Your task to perform on an android device: Open settings on Google Maps Image 0: 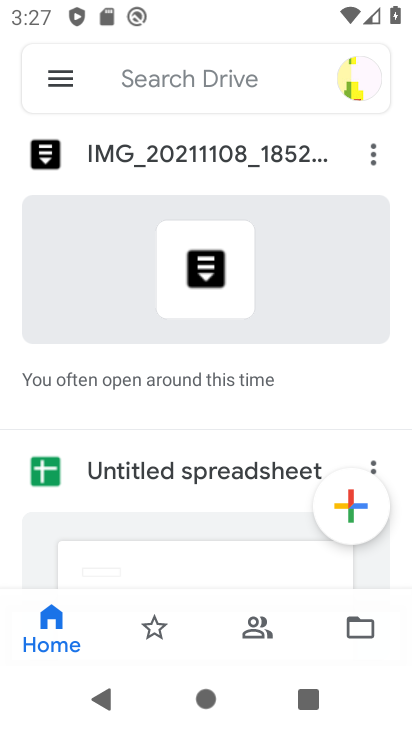
Step 0: press back button
Your task to perform on an android device: Open settings on Google Maps Image 1: 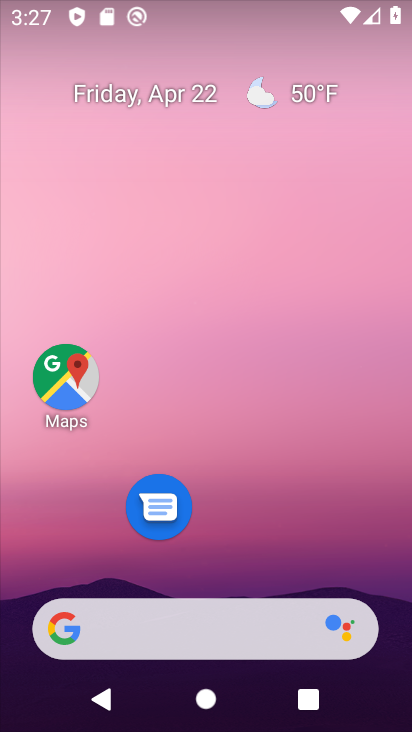
Step 1: click (66, 377)
Your task to perform on an android device: Open settings on Google Maps Image 2: 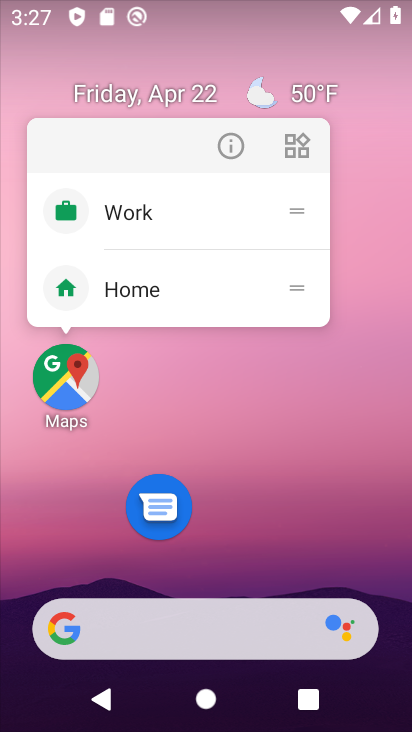
Step 2: click (73, 381)
Your task to perform on an android device: Open settings on Google Maps Image 3: 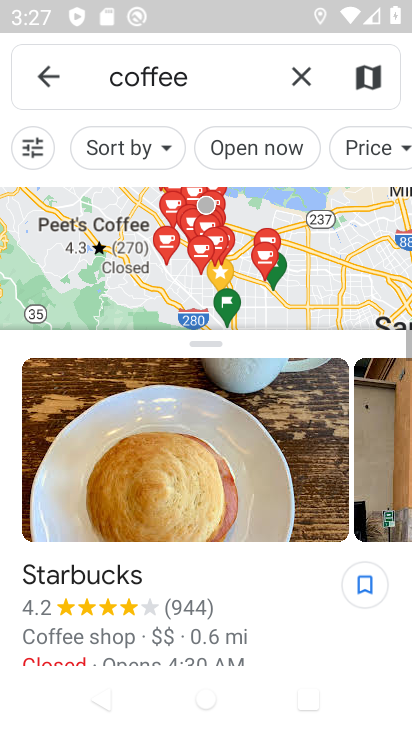
Step 3: click (37, 71)
Your task to perform on an android device: Open settings on Google Maps Image 4: 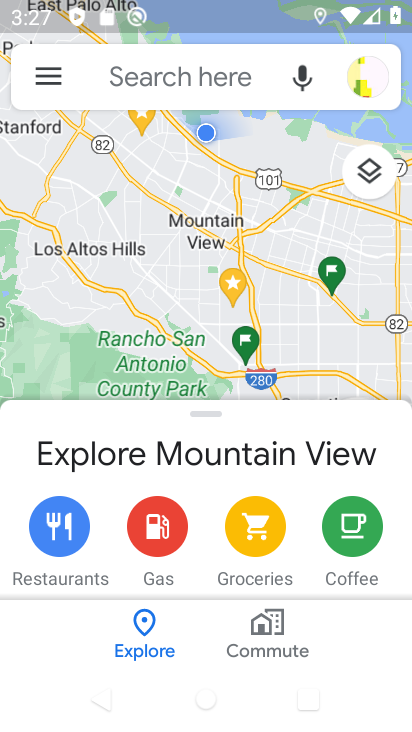
Step 4: click (55, 80)
Your task to perform on an android device: Open settings on Google Maps Image 5: 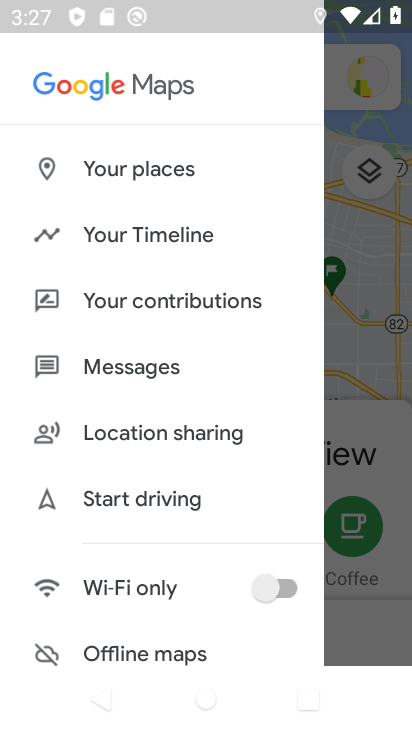
Step 5: drag from (143, 599) to (257, 53)
Your task to perform on an android device: Open settings on Google Maps Image 6: 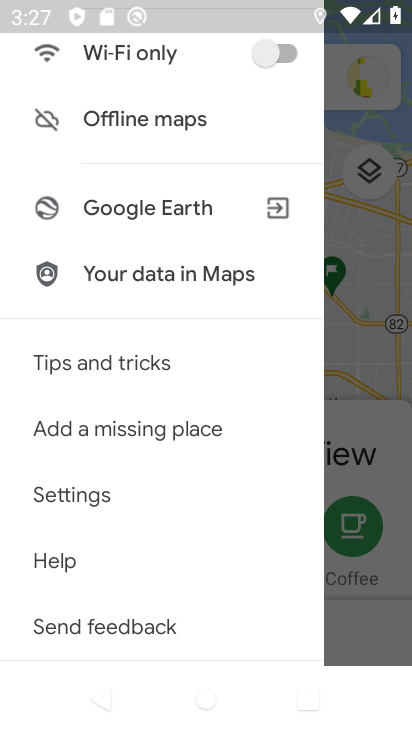
Step 6: click (91, 502)
Your task to perform on an android device: Open settings on Google Maps Image 7: 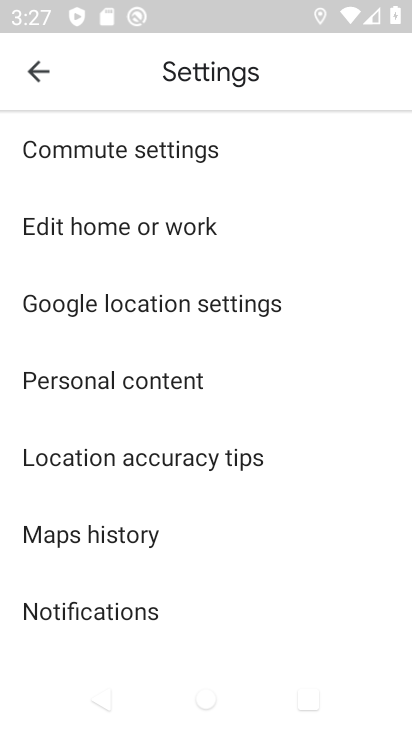
Step 7: task complete